Your task to perform on an android device: Open my contact list Image 0: 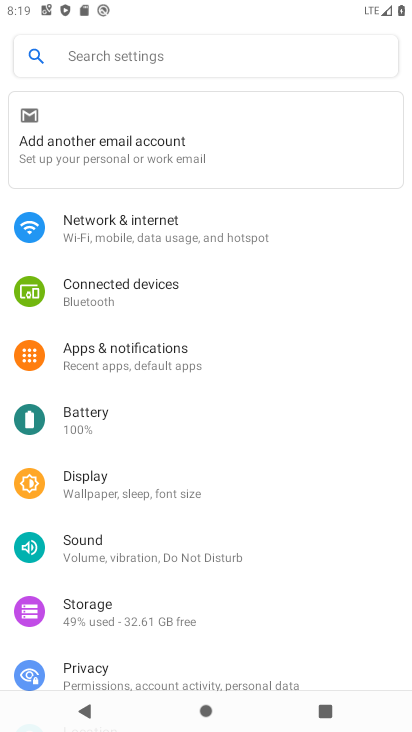
Step 0: press home button
Your task to perform on an android device: Open my contact list Image 1: 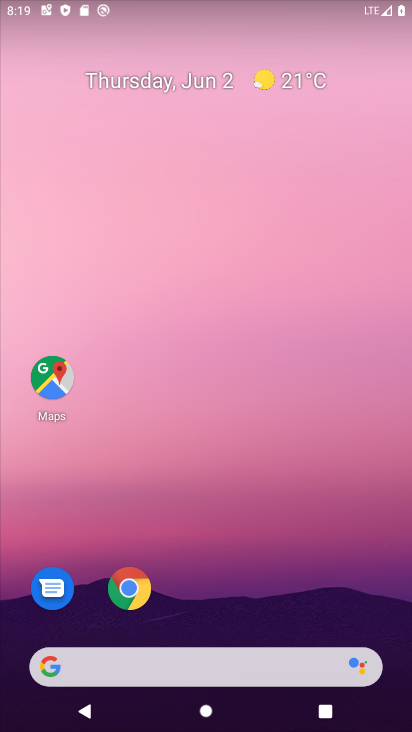
Step 1: drag from (258, 453) to (277, 150)
Your task to perform on an android device: Open my contact list Image 2: 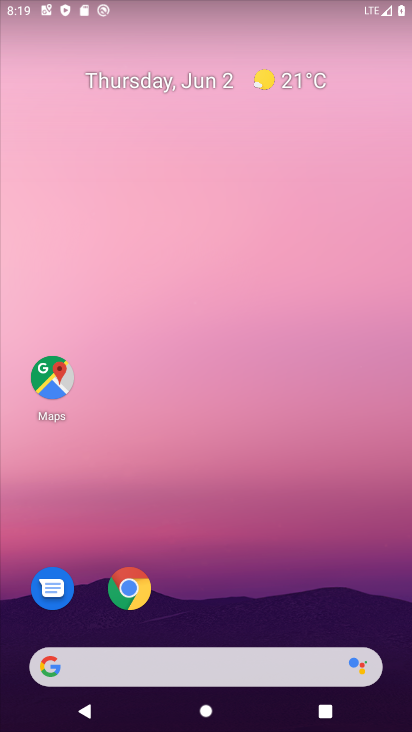
Step 2: drag from (185, 670) to (263, 115)
Your task to perform on an android device: Open my contact list Image 3: 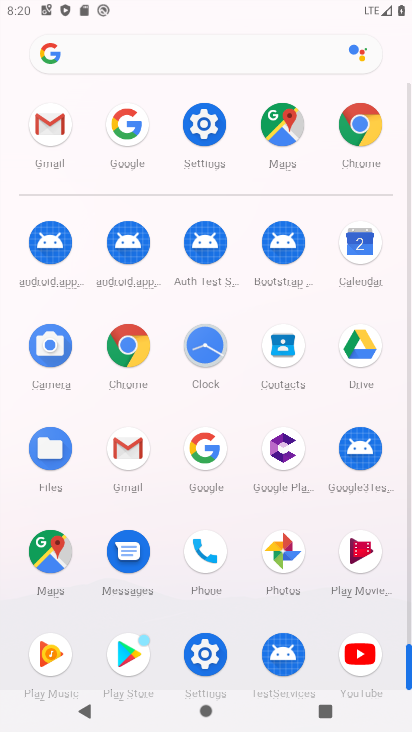
Step 3: click (312, 389)
Your task to perform on an android device: Open my contact list Image 4: 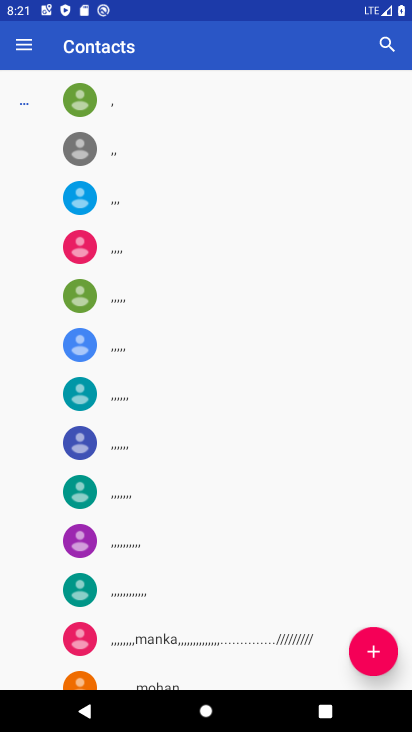
Step 4: task complete